Your task to perform on an android device: Open Youtube and go to "Your channel" Image 0: 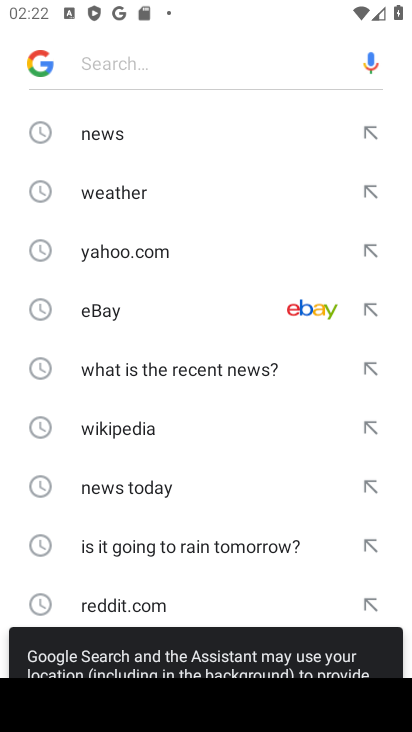
Step 0: press home button
Your task to perform on an android device: Open Youtube and go to "Your channel" Image 1: 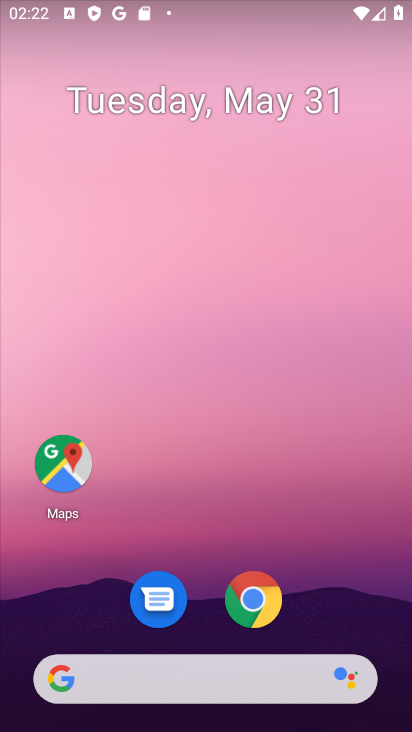
Step 1: drag from (331, 538) to (217, 61)
Your task to perform on an android device: Open Youtube and go to "Your channel" Image 2: 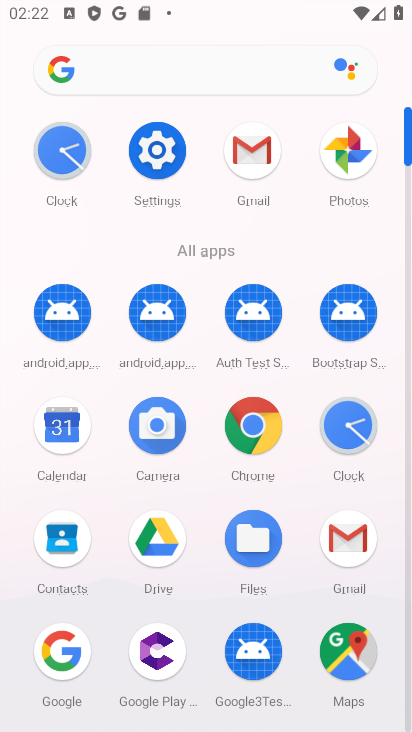
Step 2: drag from (303, 592) to (272, 147)
Your task to perform on an android device: Open Youtube and go to "Your channel" Image 3: 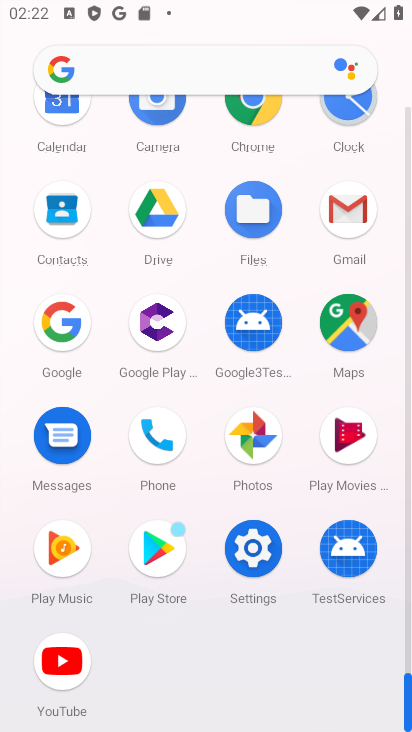
Step 3: click (77, 657)
Your task to perform on an android device: Open Youtube and go to "Your channel" Image 4: 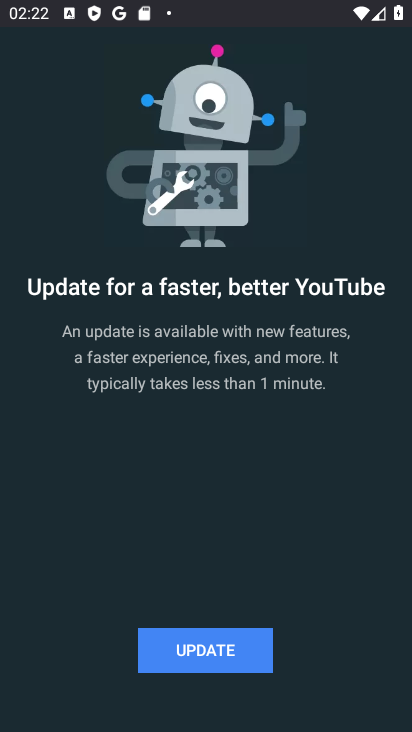
Step 4: press home button
Your task to perform on an android device: Open Youtube and go to "Your channel" Image 5: 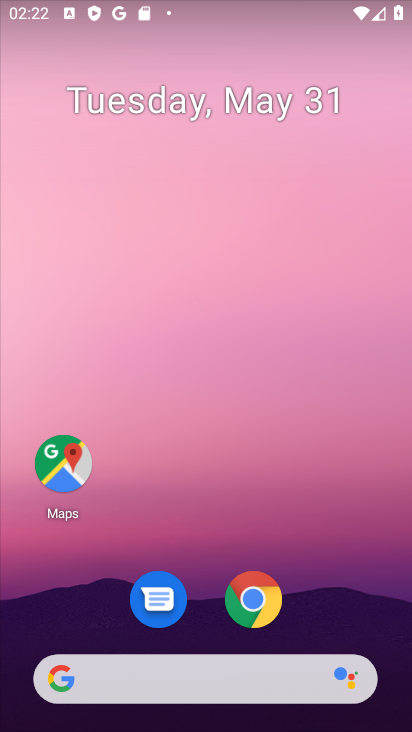
Step 5: drag from (370, 621) to (226, 44)
Your task to perform on an android device: Open Youtube and go to "Your channel" Image 6: 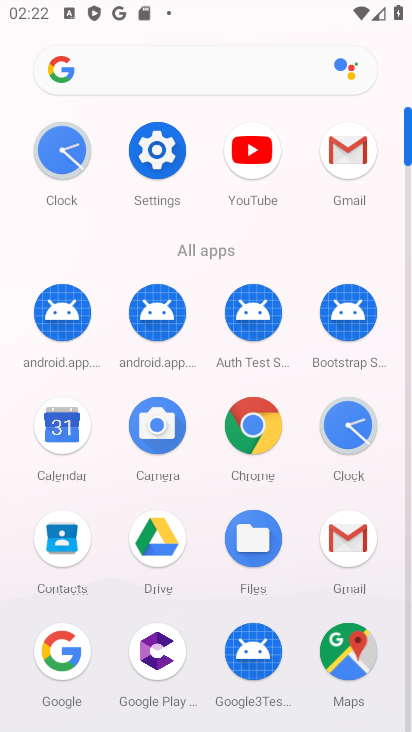
Step 6: drag from (297, 416) to (284, 282)
Your task to perform on an android device: Open Youtube and go to "Your channel" Image 7: 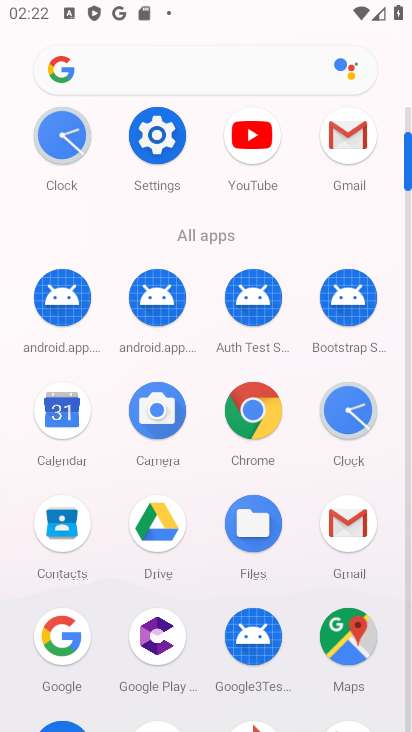
Step 7: click (255, 128)
Your task to perform on an android device: Open Youtube and go to "Your channel" Image 8: 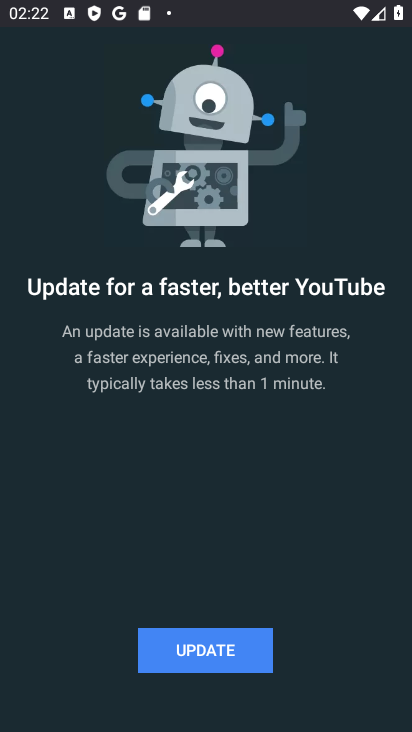
Step 8: click (220, 656)
Your task to perform on an android device: Open Youtube and go to "Your channel" Image 9: 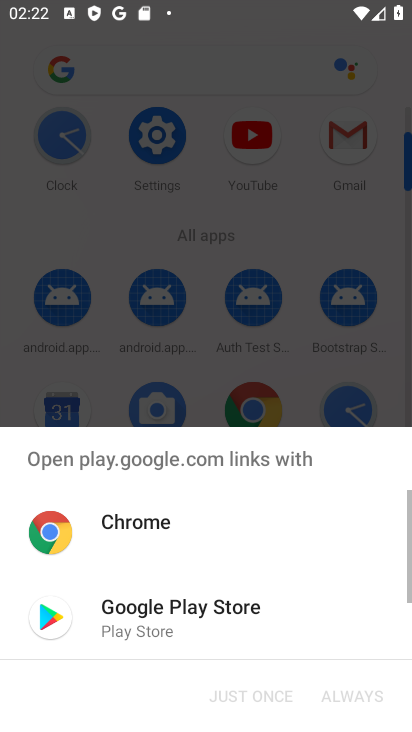
Step 9: click (140, 595)
Your task to perform on an android device: Open Youtube and go to "Your channel" Image 10: 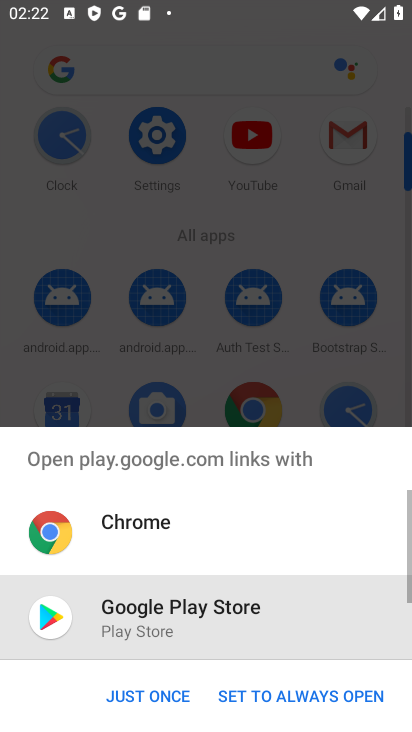
Step 10: click (178, 697)
Your task to perform on an android device: Open Youtube and go to "Your channel" Image 11: 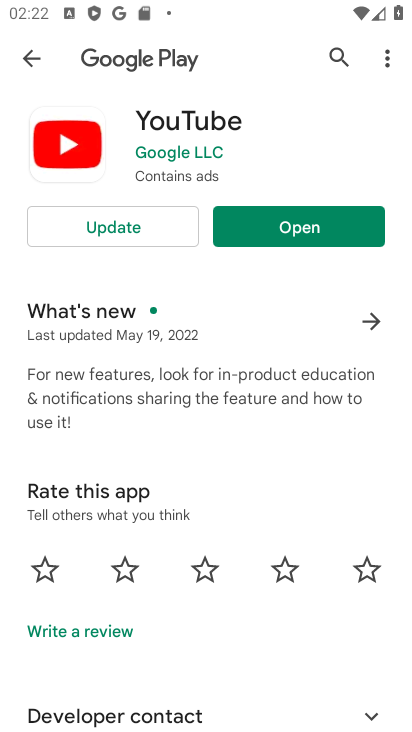
Step 11: click (106, 230)
Your task to perform on an android device: Open Youtube and go to "Your channel" Image 12: 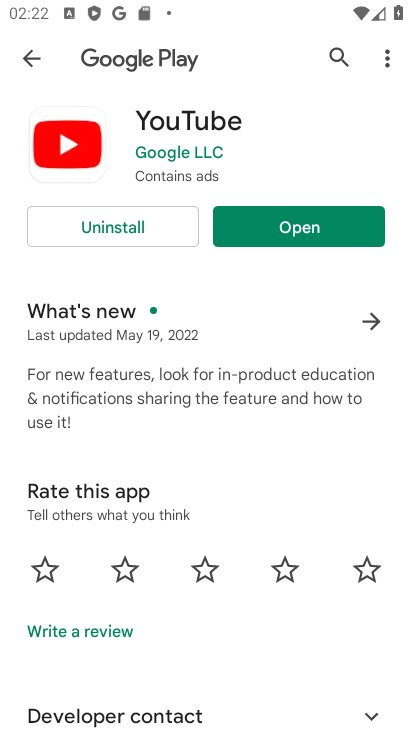
Step 12: click (303, 221)
Your task to perform on an android device: Open Youtube and go to "Your channel" Image 13: 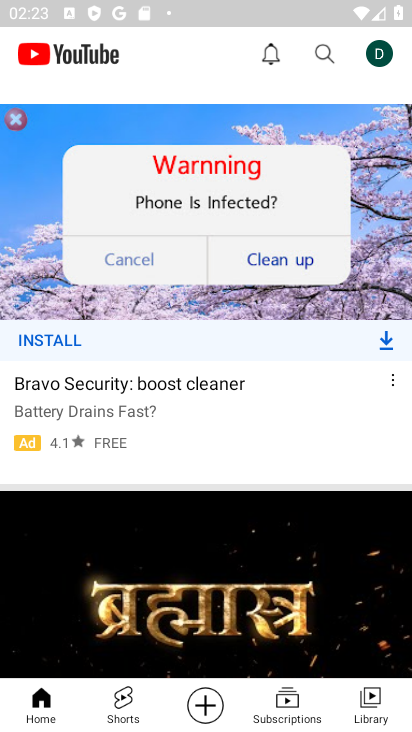
Step 13: click (383, 51)
Your task to perform on an android device: Open Youtube and go to "Your channel" Image 14: 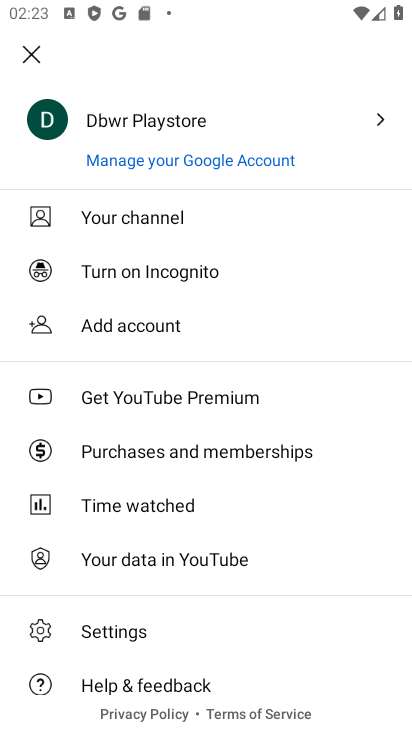
Step 14: click (168, 210)
Your task to perform on an android device: Open Youtube and go to "Your channel" Image 15: 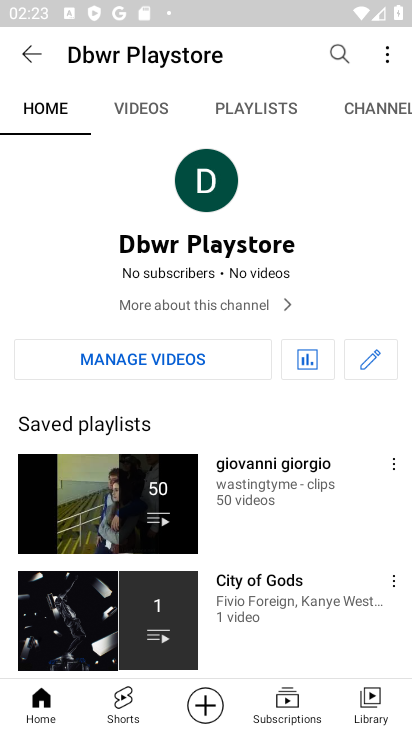
Step 15: task complete